Your task to perform on an android device: What's the weather? Image 0: 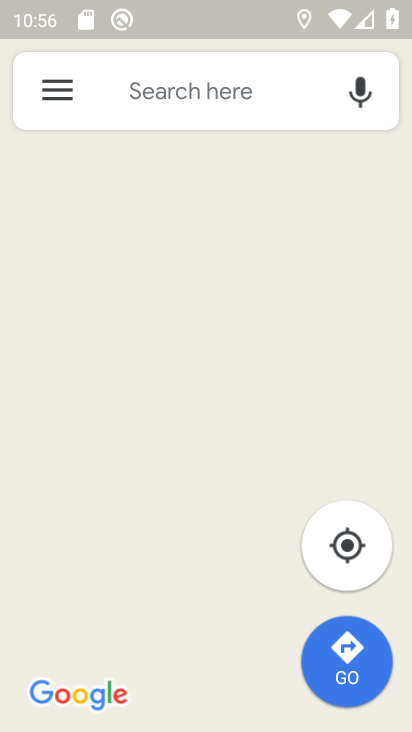
Step 0: press home button
Your task to perform on an android device: What's the weather? Image 1: 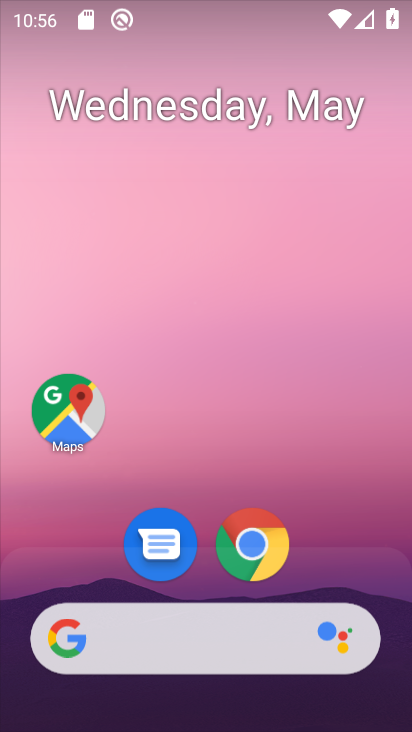
Step 1: drag from (356, 582) to (151, 80)
Your task to perform on an android device: What's the weather? Image 2: 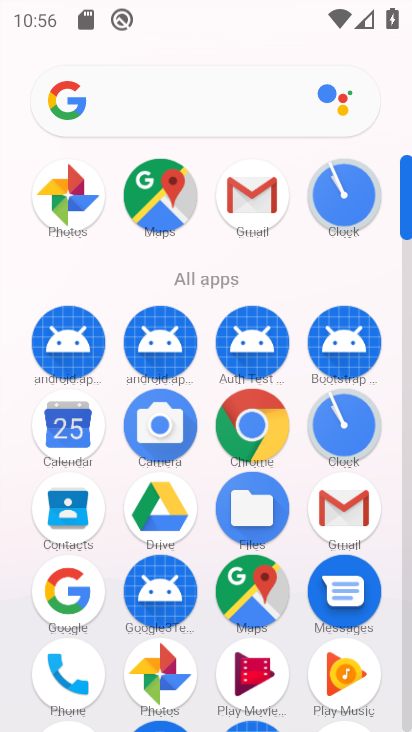
Step 2: click (241, 432)
Your task to perform on an android device: What's the weather? Image 3: 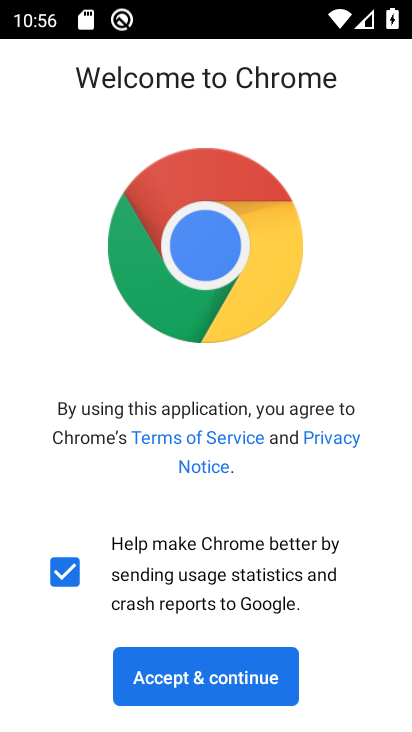
Step 3: click (209, 675)
Your task to perform on an android device: What's the weather? Image 4: 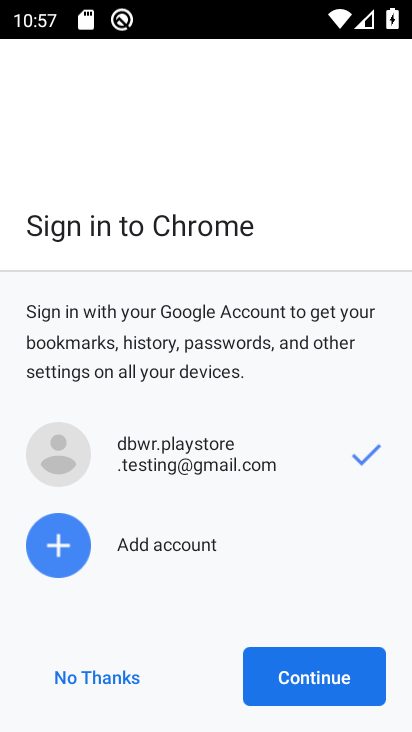
Step 4: click (286, 686)
Your task to perform on an android device: What's the weather? Image 5: 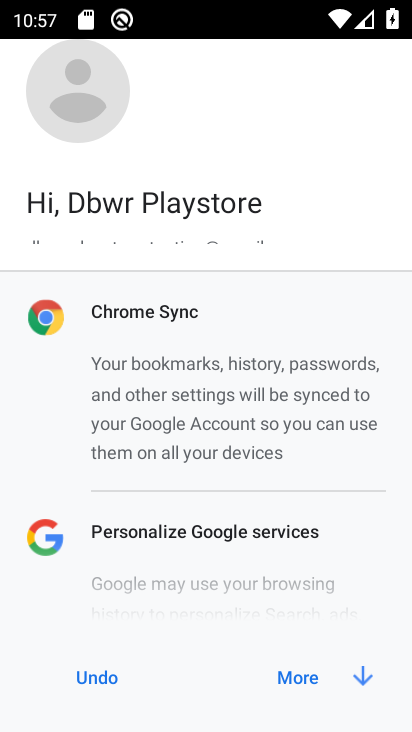
Step 5: click (286, 686)
Your task to perform on an android device: What's the weather? Image 6: 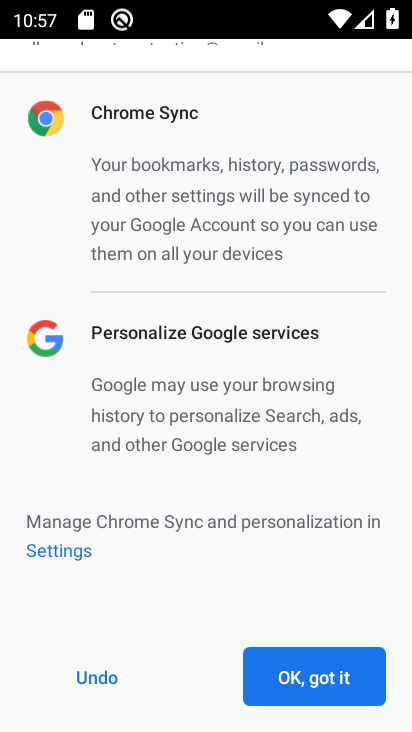
Step 6: click (286, 686)
Your task to perform on an android device: What's the weather? Image 7: 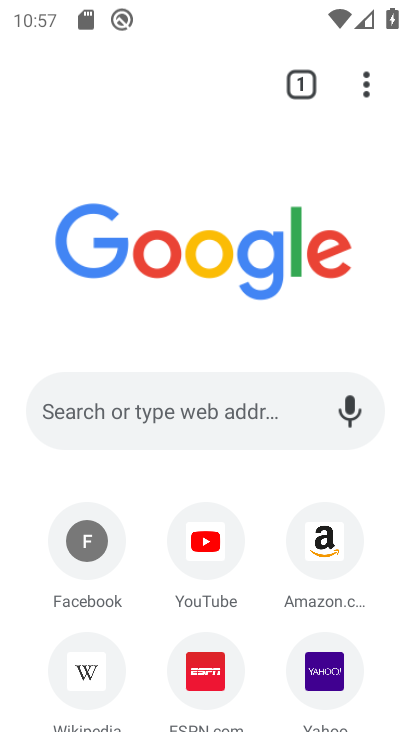
Step 7: click (135, 395)
Your task to perform on an android device: What's the weather? Image 8: 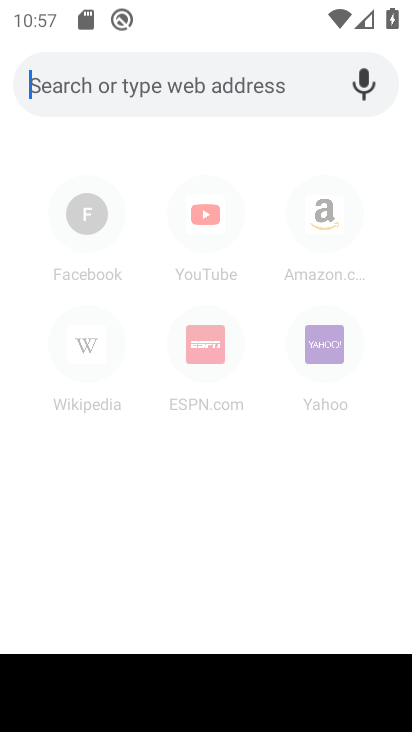
Step 8: type "what's the weather?"
Your task to perform on an android device: What's the weather? Image 9: 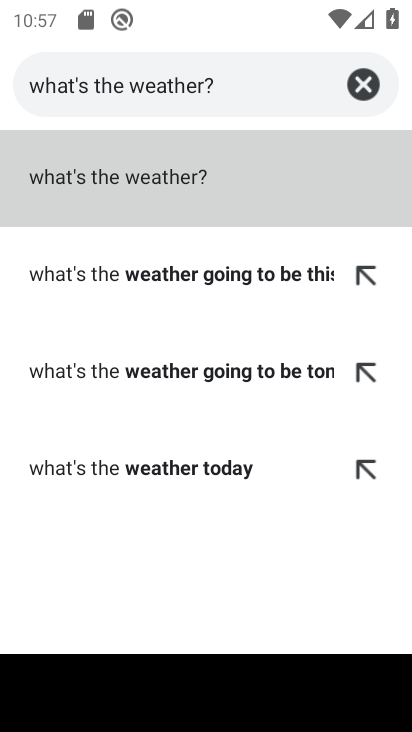
Step 9: click (163, 184)
Your task to perform on an android device: What's the weather? Image 10: 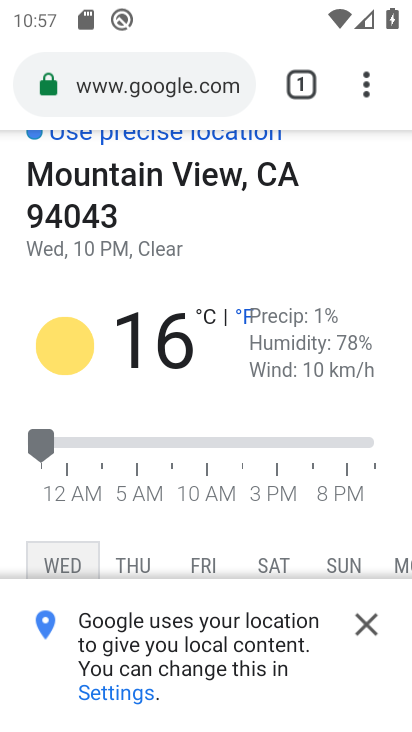
Step 10: click (362, 628)
Your task to perform on an android device: What's the weather? Image 11: 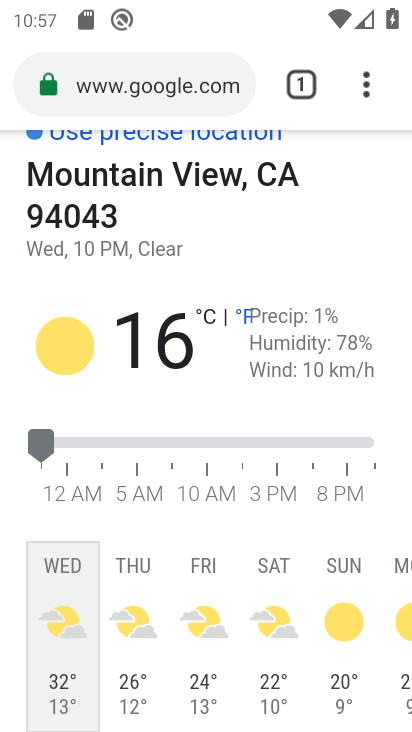
Step 11: task complete